Your task to perform on an android device: turn on the 12-hour format for clock Image 0: 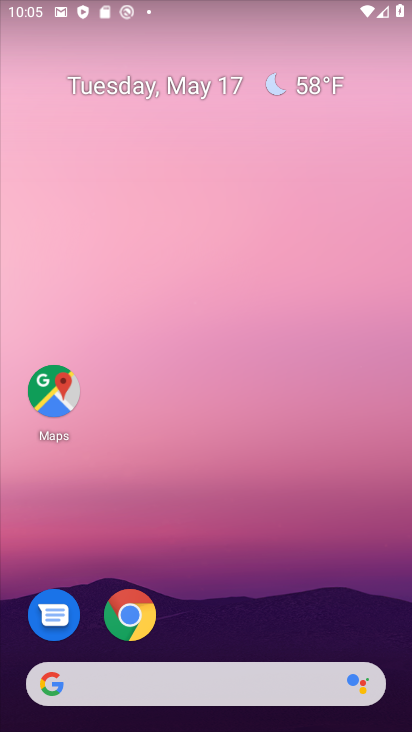
Step 0: drag from (220, 640) to (234, 174)
Your task to perform on an android device: turn on the 12-hour format for clock Image 1: 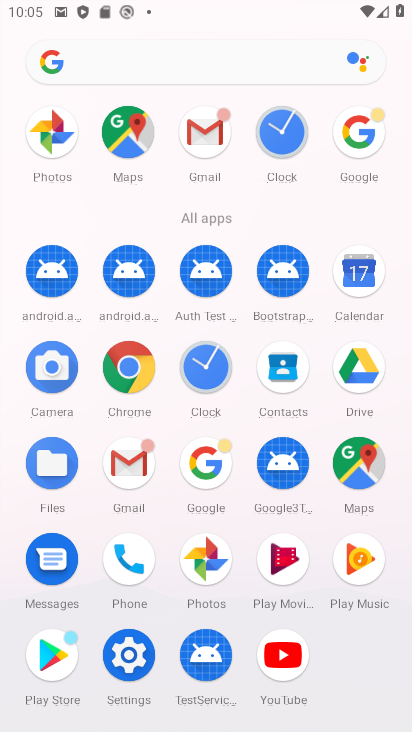
Step 1: click (278, 146)
Your task to perform on an android device: turn on the 12-hour format for clock Image 2: 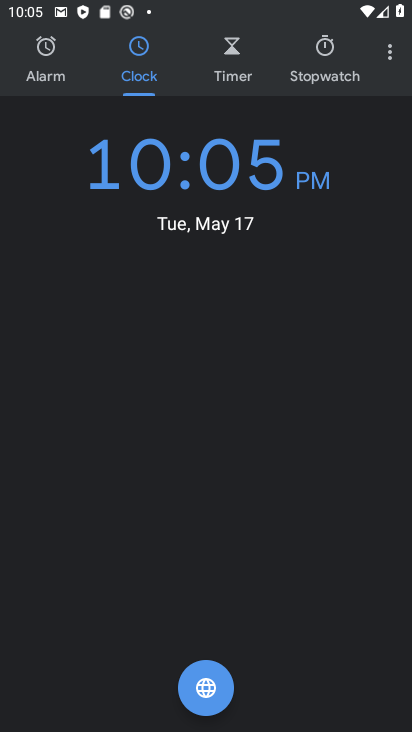
Step 2: click (385, 51)
Your task to perform on an android device: turn on the 12-hour format for clock Image 3: 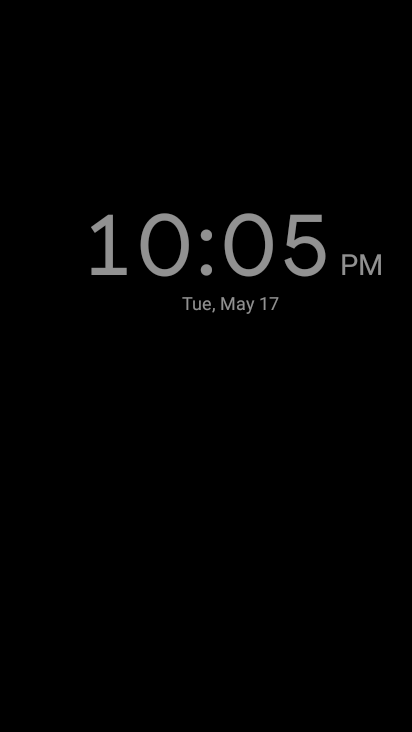
Step 3: press back button
Your task to perform on an android device: turn on the 12-hour format for clock Image 4: 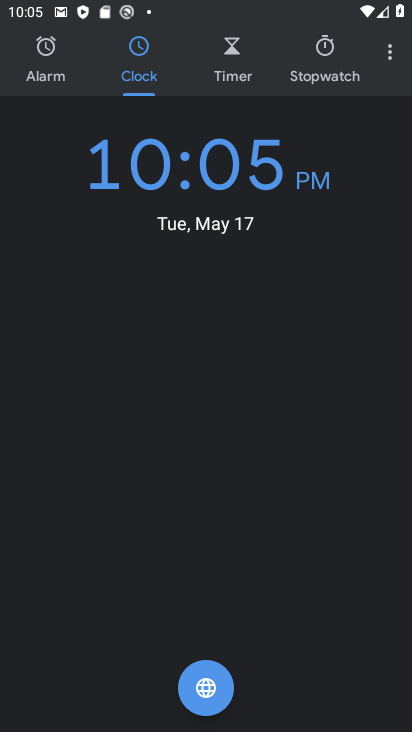
Step 4: click (390, 54)
Your task to perform on an android device: turn on the 12-hour format for clock Image 5: 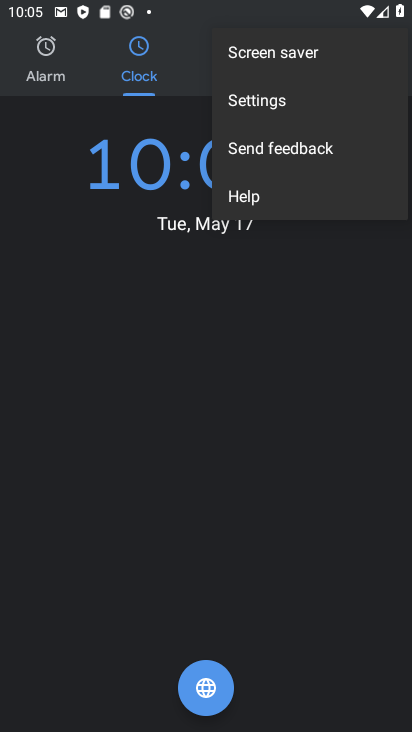
Step 5: click (229, 111)
Your task to perform on an android device: turn on the 12-hour format for clock Image 6: 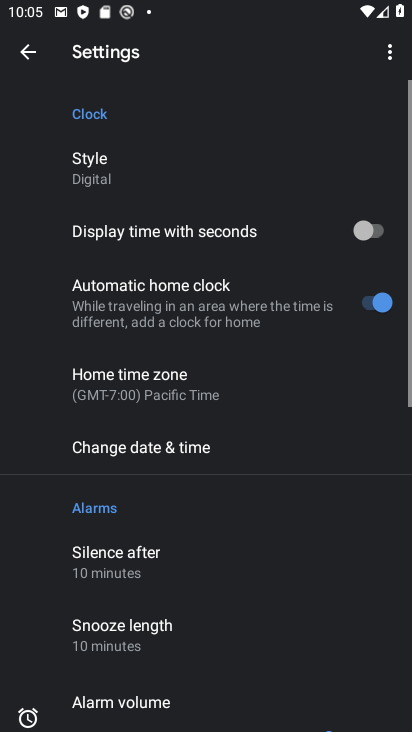
Step 6: click (188, 427)
Your task to perform on an android device: turn on the 12-hour format for clock Image 7: 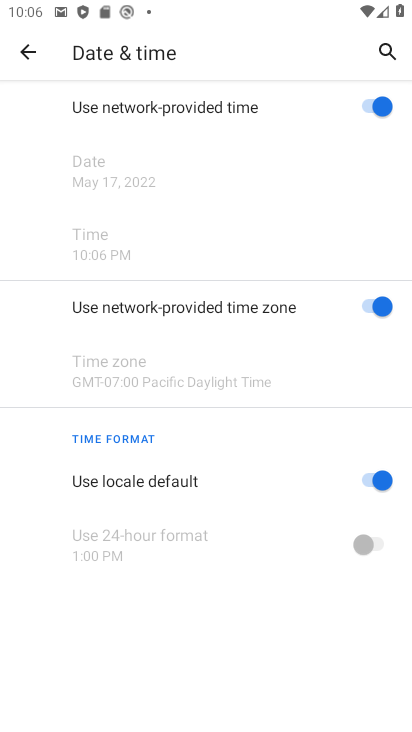
Step 7: task complete